Your task to perform on an android device: Turn off the flashlight Image 0: 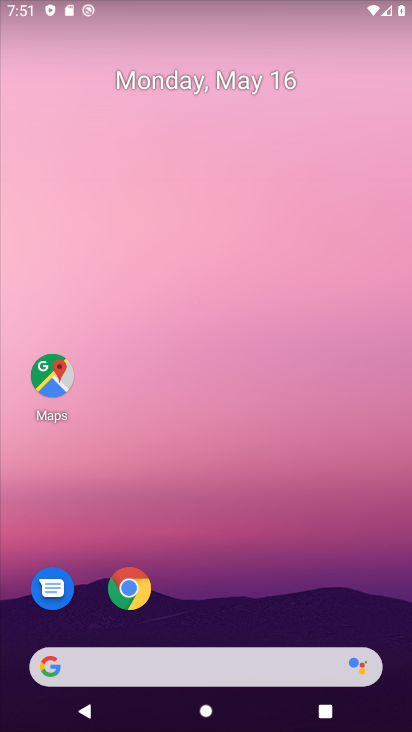
Step 0: drag from (237, 5) to (228, 368)
Your task to perform on an android device: Turn off the flashlight Image 1: 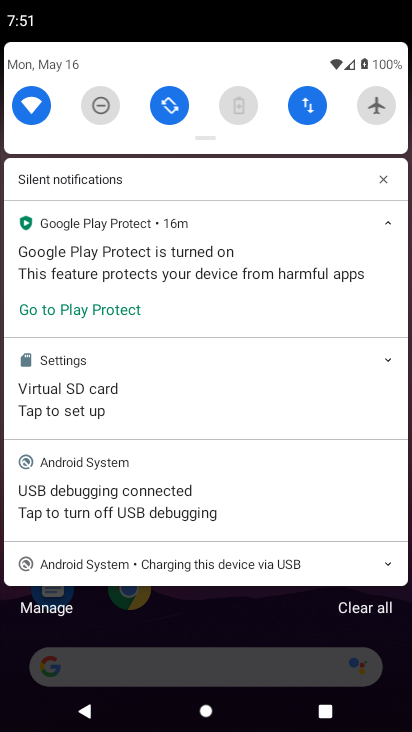
Step 1: drag from (201, 61) to (207, 362)
Your task to perform on an android device: Turn off the flashlight Image 2: 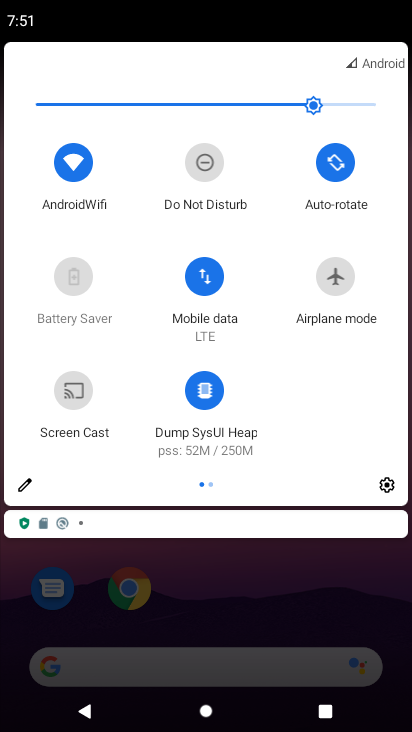
Step 2: click (36, 486)
Your task to perform on an android device: Turn off the flashlight Image 3: 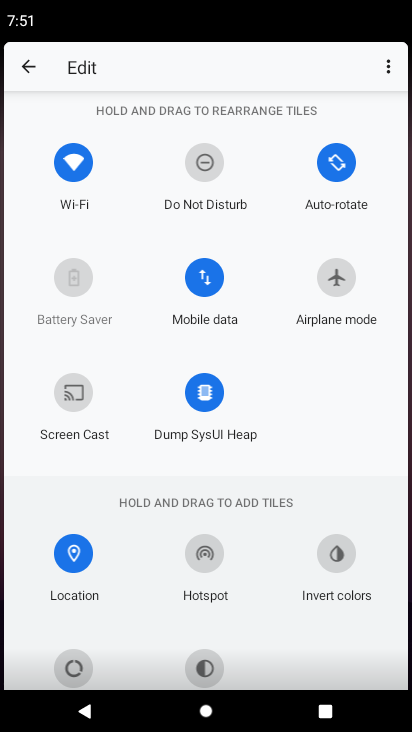
Step 3: task complete